Your task to perform on an android device: Show me popular games on the Play Store Image 0: 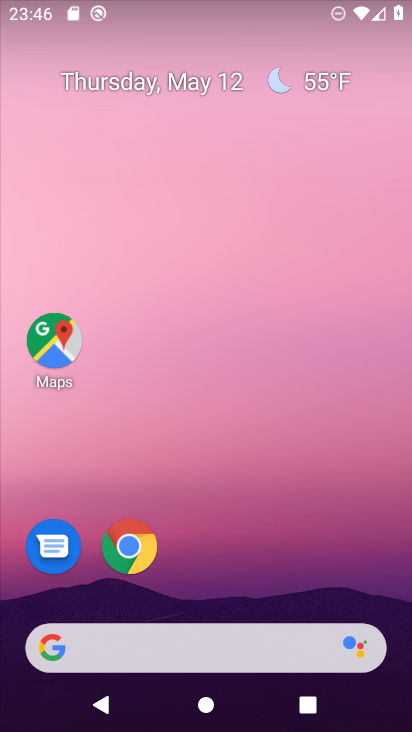
Step 0: drag from (130, 610) to (190, 105)
Your task to perform on an android device: Show me popular games on the Play Store Image 1: 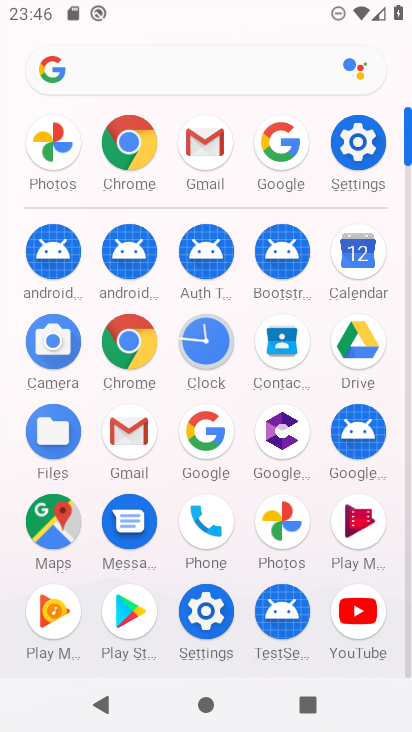
Step 1: click (123, 613)
Your task to perform on an android device: Show me popular games on the Play Store Image 2: 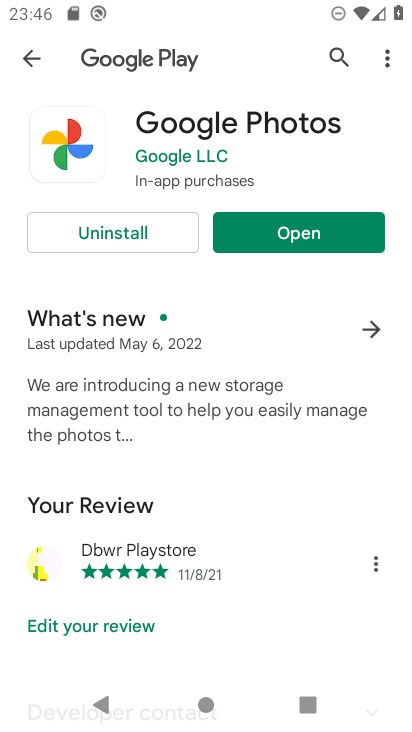
Step 2: click (32, 56)
Your task to perform on an android device: Show me popular games on the Play Store Image 3: 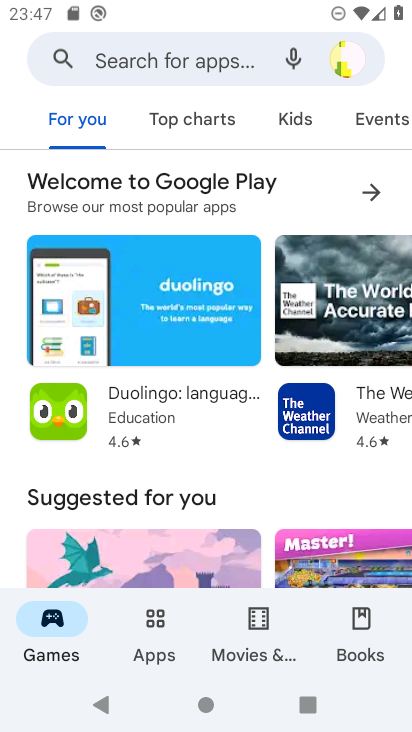
Step 3: click (189, 64)
Your task to perform on an android device: Show me popular games on the Play Store Image 4: 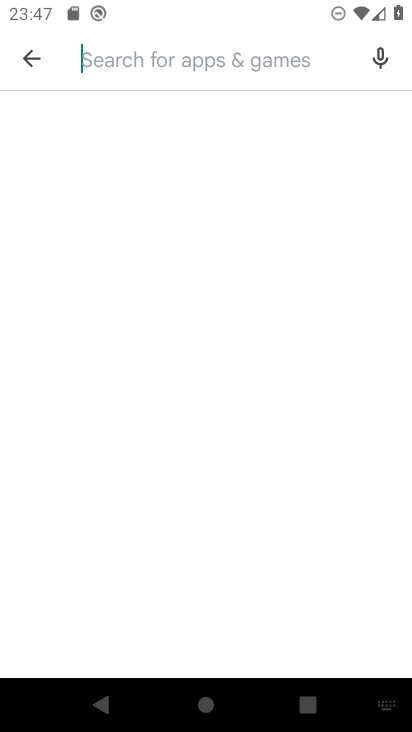
Step 4: type "popular games"
Your task to perform on an android device: Show me popular games on the Play Store Image 5: 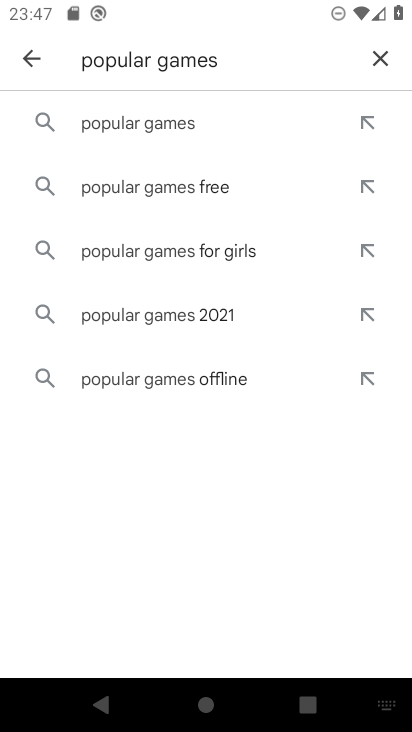
Step 5: click (170, 126)
Your task to perform on an android device: Show me popular games on the Play Store Image 6: 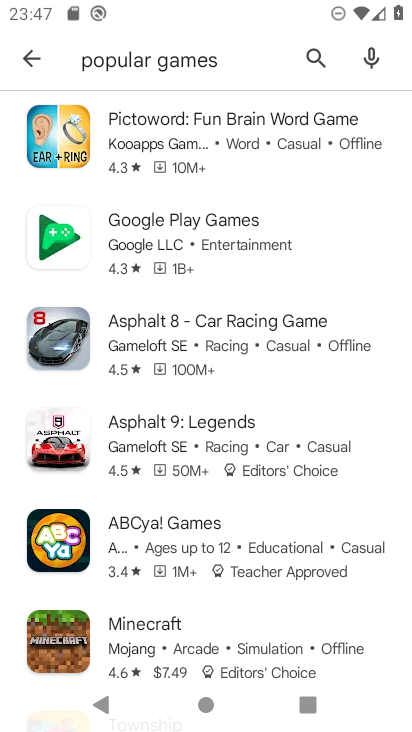
Step 6: task complete